Your task to perform on an android device: turn off priority inbox in the gmail app Image 0: 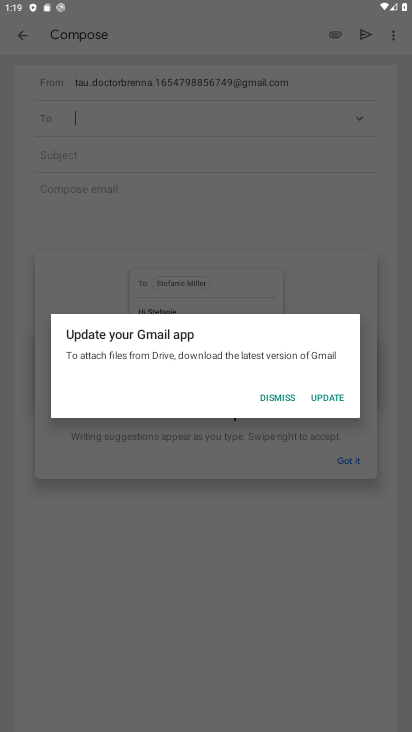
Step 0: press home button
Your task to perform on an android device: turn off priority inbox in the gmail app Image 1: 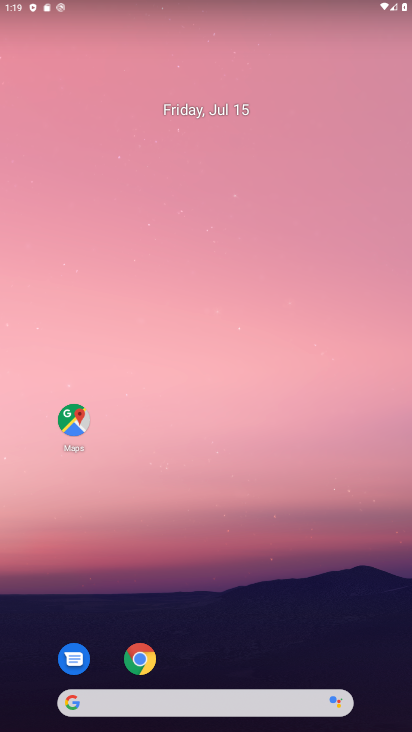
Step 1: drag from (226, 555) to (300, 105)
Your task to perform on an android device: turn off priority inbox in the gmail app Image 2: 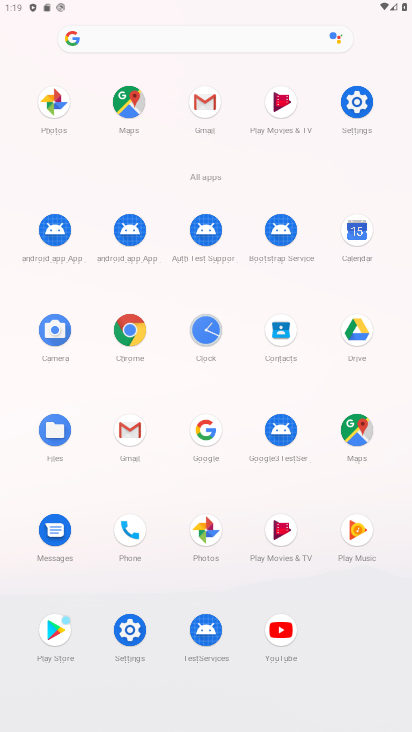
Step 2: click (134, 444)
Your task to perform on an android device: turn off priority inbox in the gmail app Image 3: 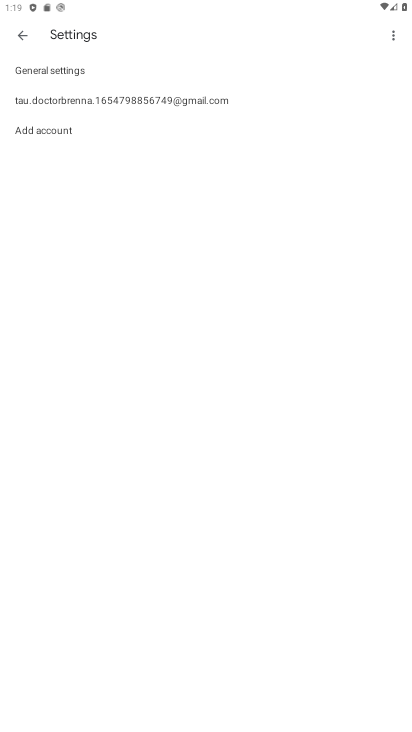
Step 3: click (136, 105)
Your task to perform on an android device: turn off priority inbox in the gmail app Image 4: 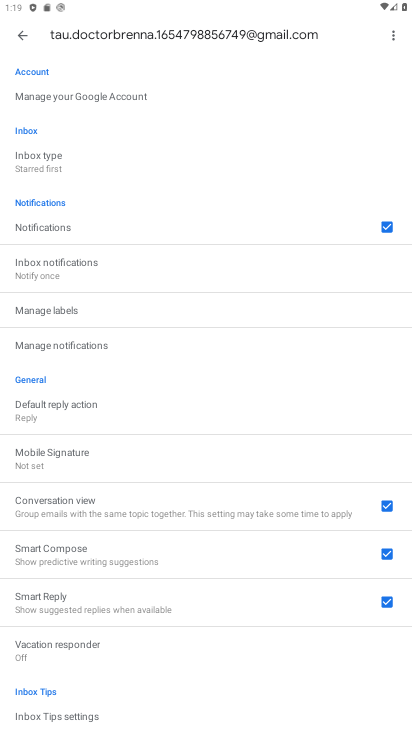
Step 4: click (90, 165)
Your task to perform on an android device: turn off priority inbox in the gmail app Image 5: 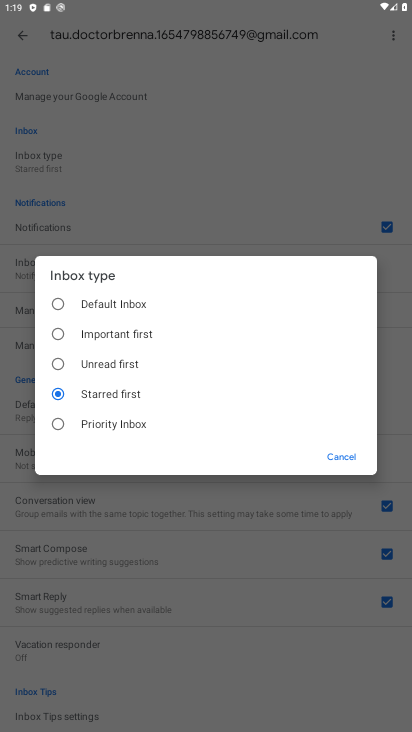
Step 5: task complete